Your task to perform on an android device: What's the latest video from GameSpot Trailers? Image 0: 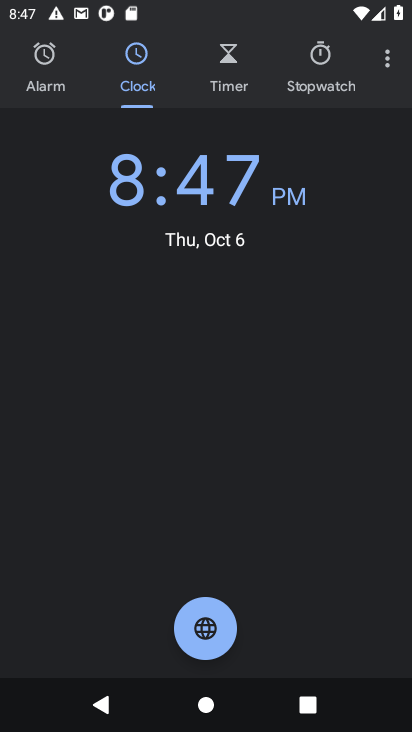
Step 0: press home button
Your task to perform on an android device: What's the latest video from GameSpot Trailers? Image 1: 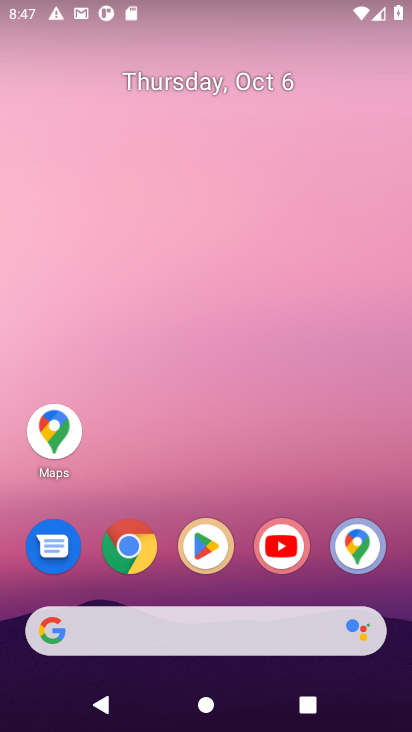
Step 1: click (283, 543)
Your task to perform on an android device: What's the latest video from GameSpot Trailers? Image 2: 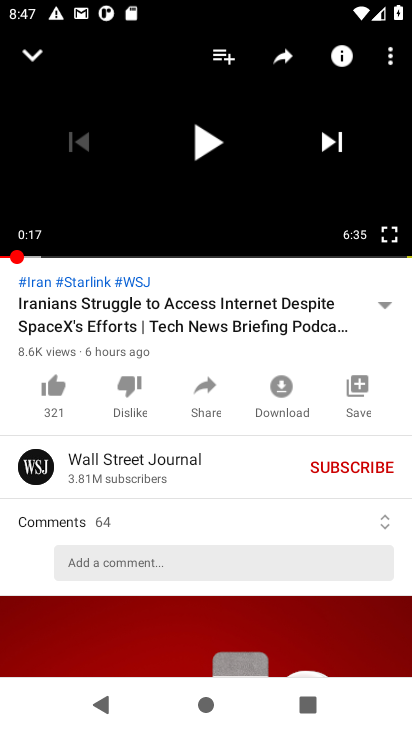
Step 2: click (33, 56)
Your task to perform on an android device: What's the latest video from GameSpot Trailers? Image 3: 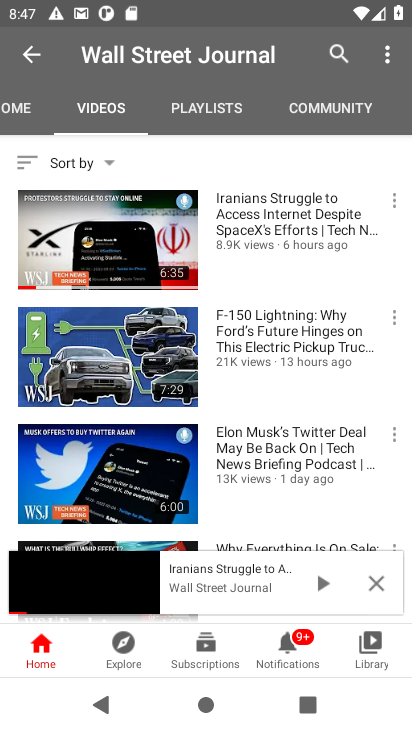
Step 3: click (336, 47)
Your task to perform on an android device: What's the latest video from GameSpot Trailers? Image 4: 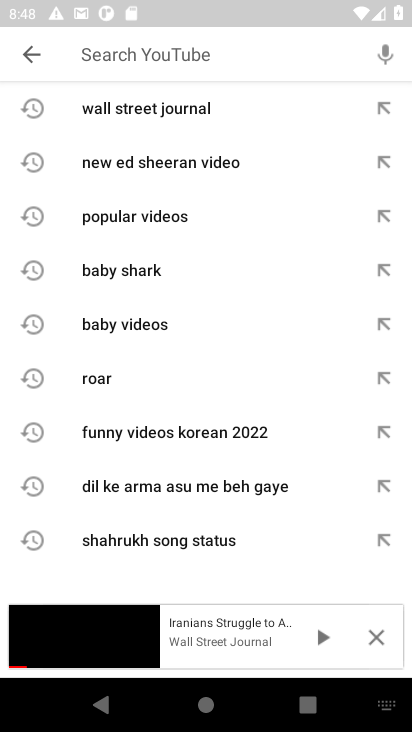
Step 4: type "Gamspot trailers"
Your task to perform on an android device: What's the latest video from GameSpot Trailers? Image 5: 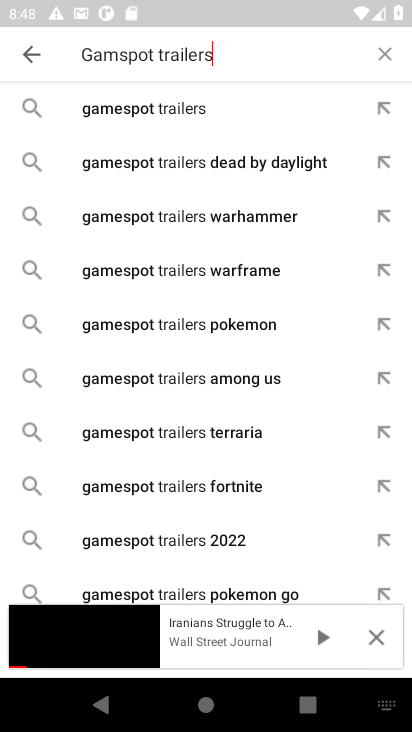
Step 5: click (164, 109)
Your task to perform on an android device: What's the latest video from GameSpot Trailers? Image 6: 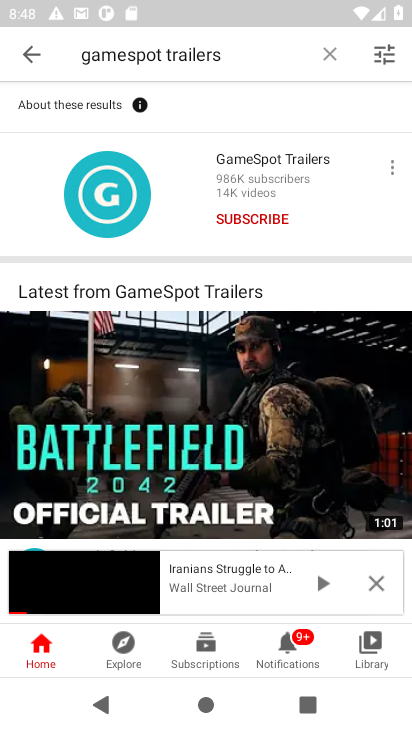
Step 6: click (258, 164)
Your task to perform on an android device: What's the latest video from GameSpot Trailers? Image 7: 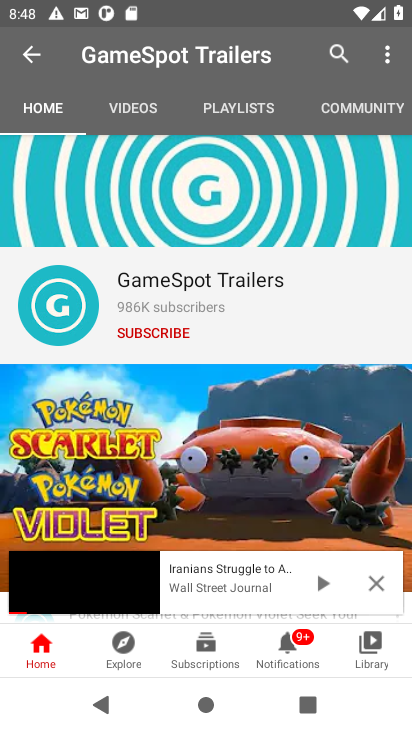
Step 7: click (143, 112)
Your task to perform on an android device: What's the latest video from GameSpot Trailers? Image 8: 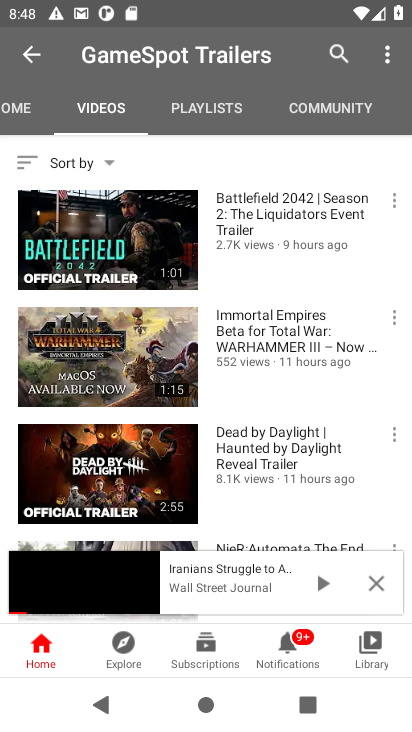
Step 8: click (93, 243)
Your task to perform on an android device: What's the latest video from GameSpot Trailers? Image 9: 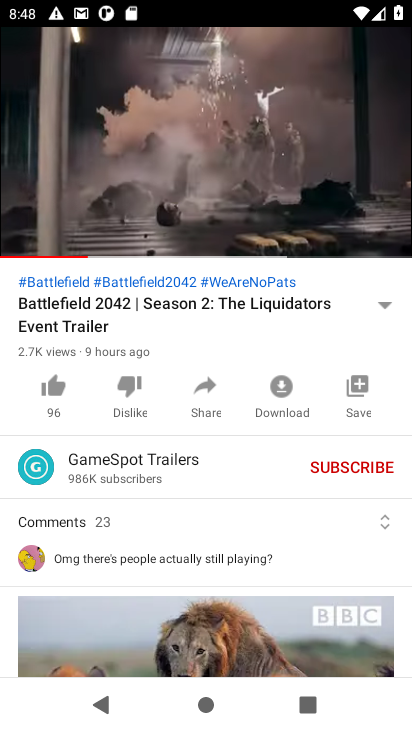
Step 9: click (210, 143)
Your task to perform on an android device: What's the latest video from GameSpot Trailers? Image 10: 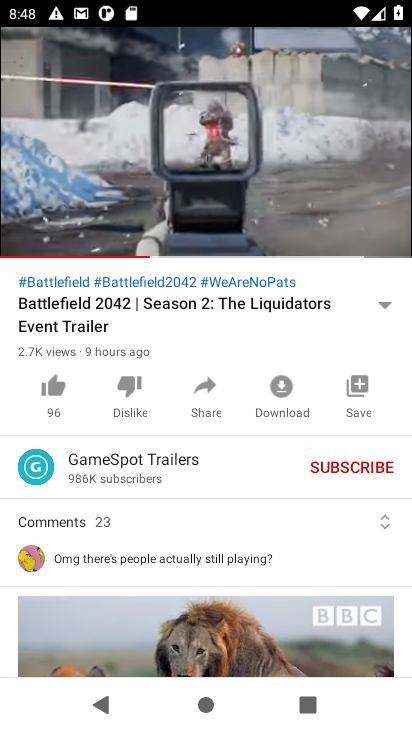
Step 10: click (210, 143)
Your task to perform on an android device: What's the latest video from GameSpot Trailers? Image 11: 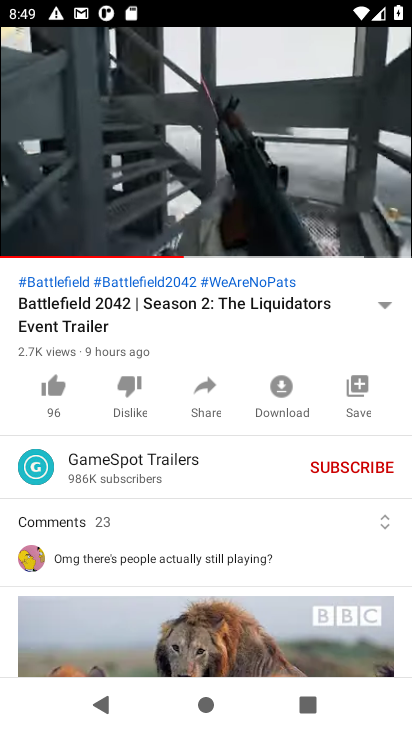
Step 11: click (210, 143)
Your task to perform on an android device: What's the latest video from GameSpot Trailers? Image 12: 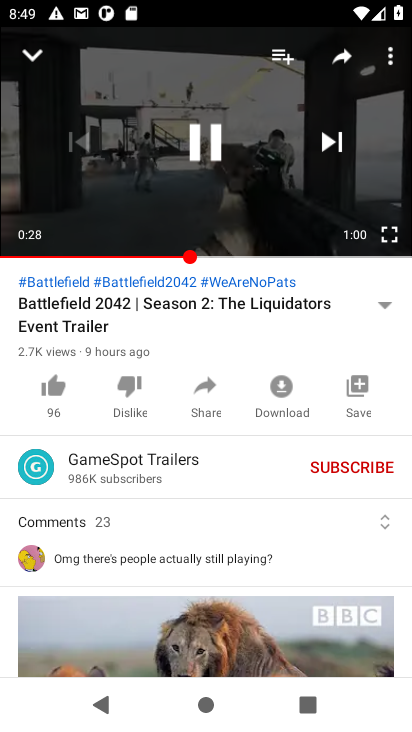
Step 12: click (210, 143)
Your task to perform on an android device: What's the latest video from GameSpot Trailers? Image 13: 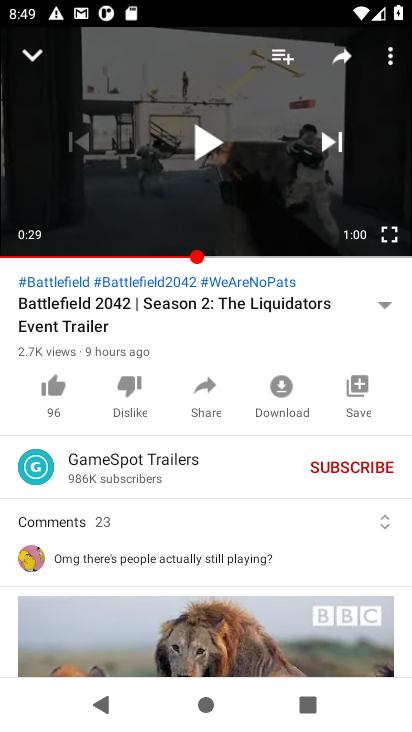
Step 13: task complete